Your task to perform on an android device: Open Chrome and go to settings Image 0: 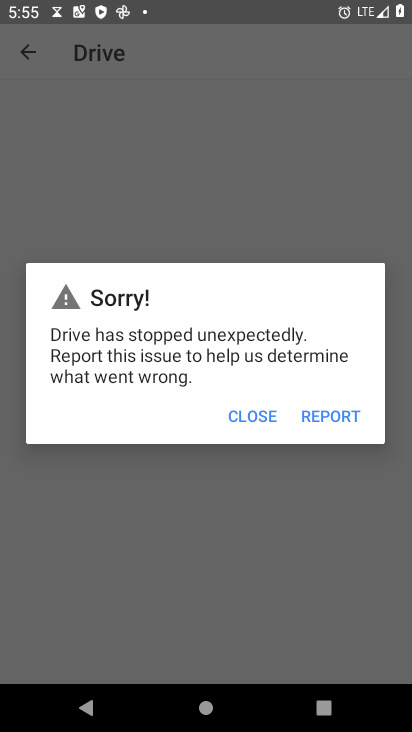
Step 0: press home button
Your task to perform on an android device: Open Chrome and go to settings Image 1: 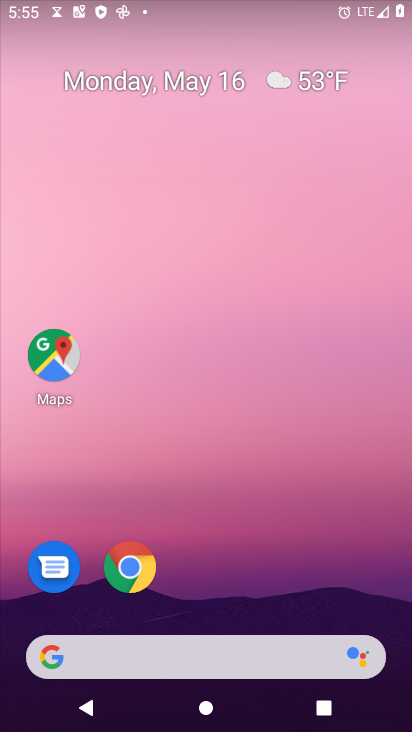
Step 1: drag from (206, 716) to (291, 14)
Your task to perform on an android device: Open Chrome and go to settings Image 2: 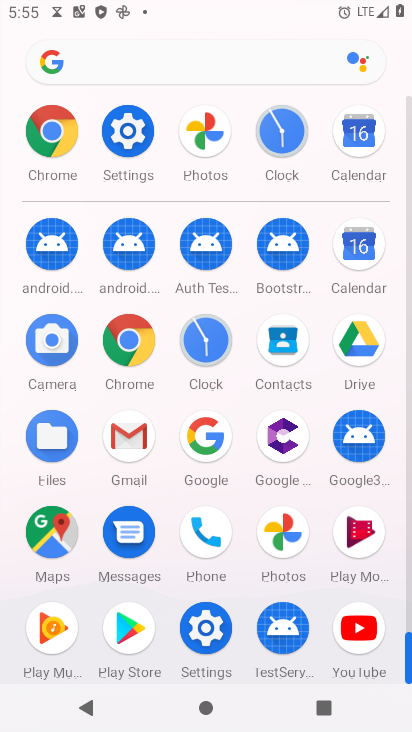
Step 2: click (127, 319)
Your task to perform on an android device: Open Chrome and go to settings Image 3: 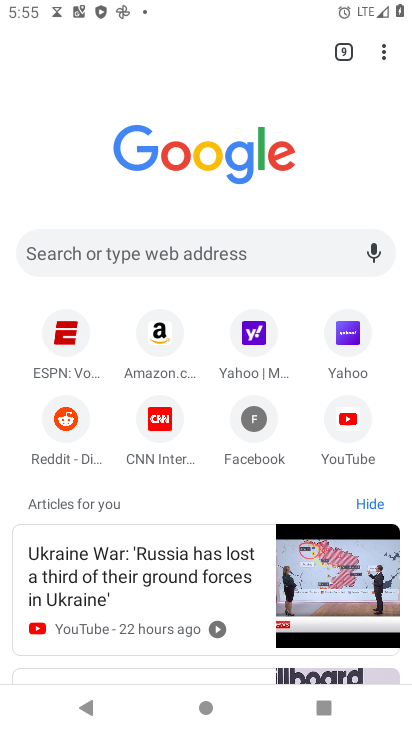
Step 3: task complete